Your task to perform on an android device: Open the map Image 0: 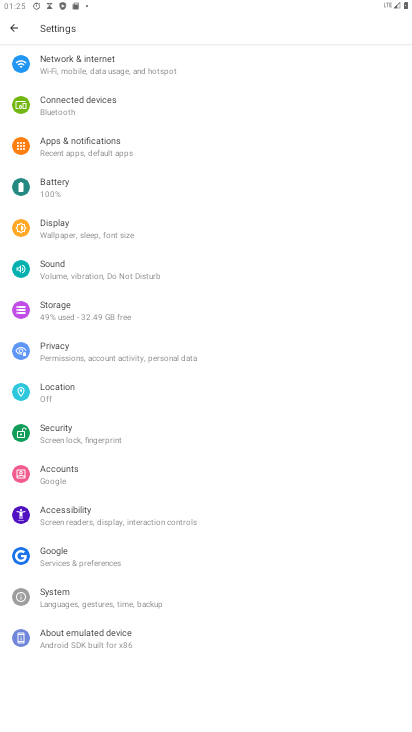
Step 0: press home button
Your task to perform on an android device: Open the map Image 1: 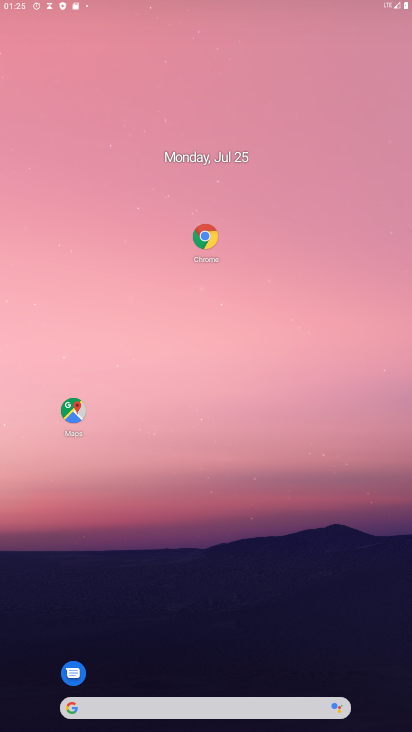
Step 1: drag from (259, 693) to (353, 22)
Your task to perform on an android device: Open the map Image 2: 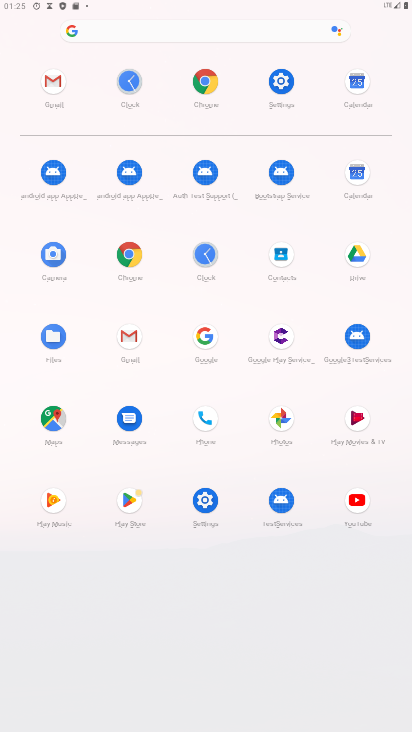
Step 2: click (59, 416)
Your task to perform on an android device: Open the map Image 3: 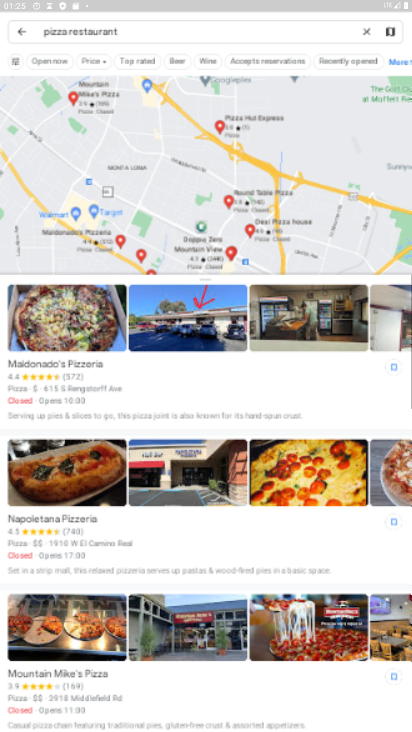
Step 3: task complete